Your task to perform on an android device: What's the weather today? Image 0: 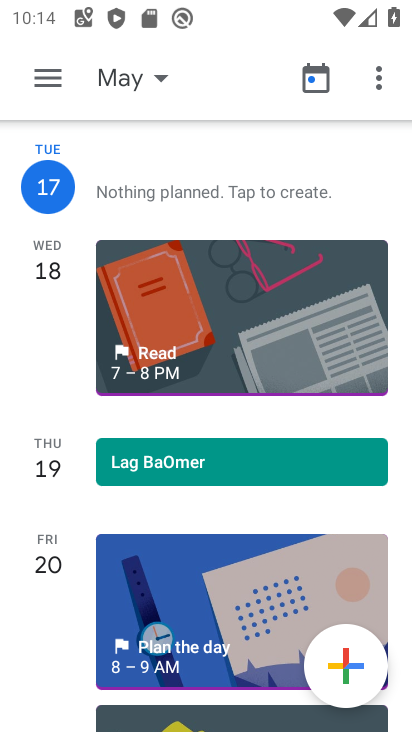
Step 0: press home button
Your task to perform on an android device: What's the weather today? Image 1: 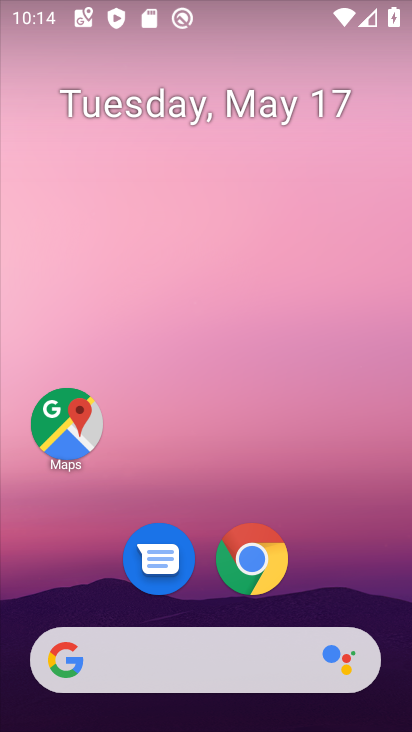
Step 1: click (263, 666)
Your task to perform on an android device: What's the weather today? Image 2: 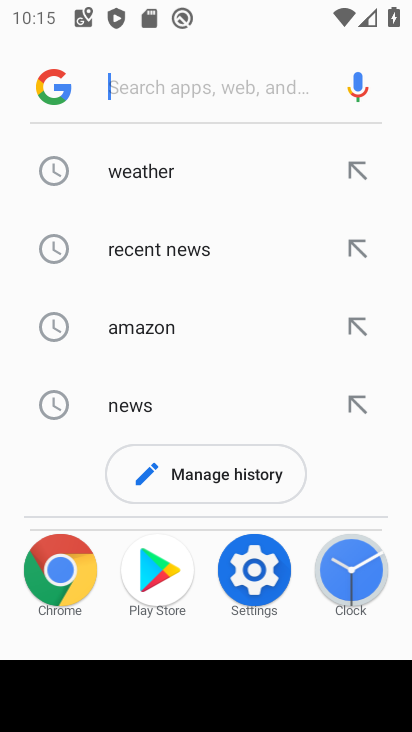
Step 2: click (207, 94)
Your task to perform on an android device: What's the weather today? Image 3: 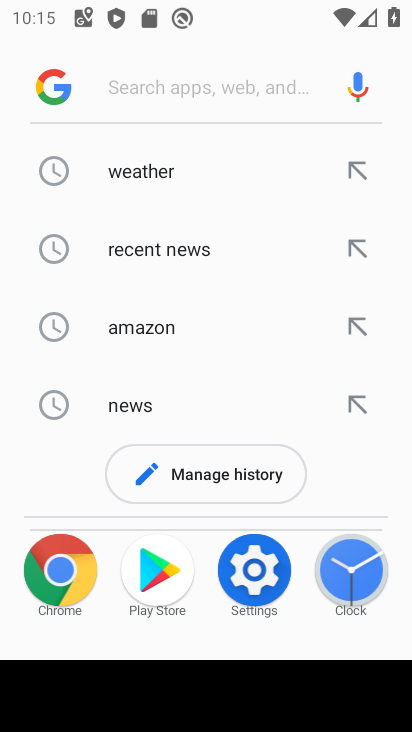
Step 3: click (245, 94)
Your task to perform on an android device: What's the weather today? Image 4: 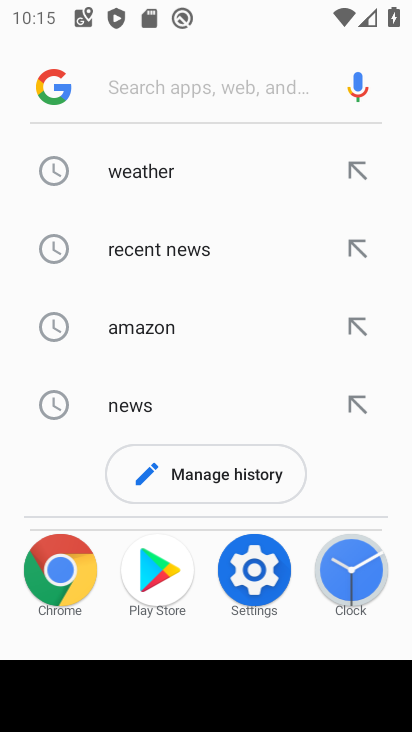
Step 4: type "What's the weather today?"
Your task to perform on an android device: What's the weather today? Image 5: 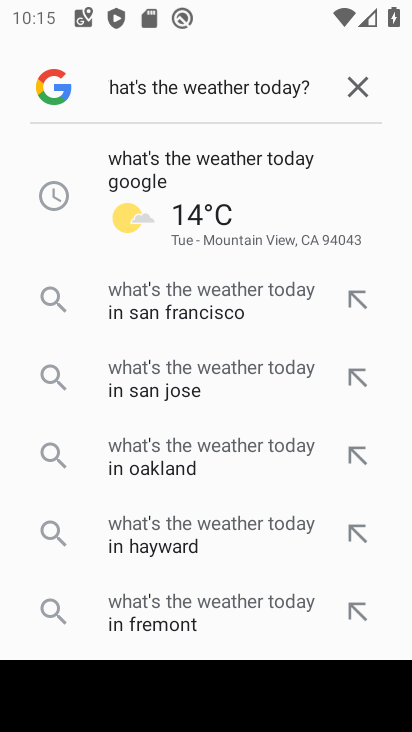
Step 5: click (256, 157)
Your task to perform on an android device: What's the weather today? Image 6: 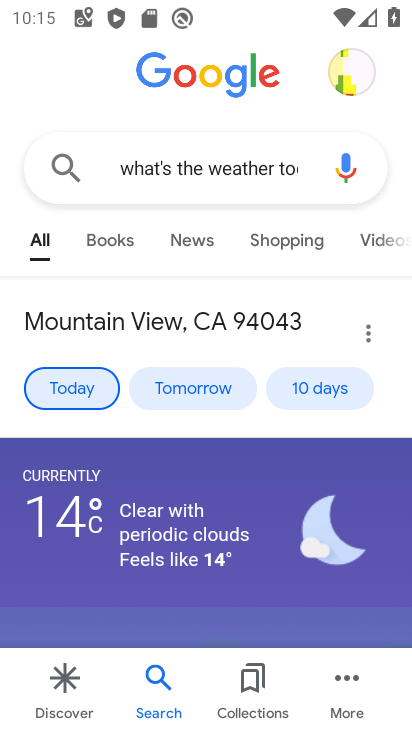
Step 6: task complete